Your task to perform on an android device: Search for the new lego star wars 2021 on Target Image 0: 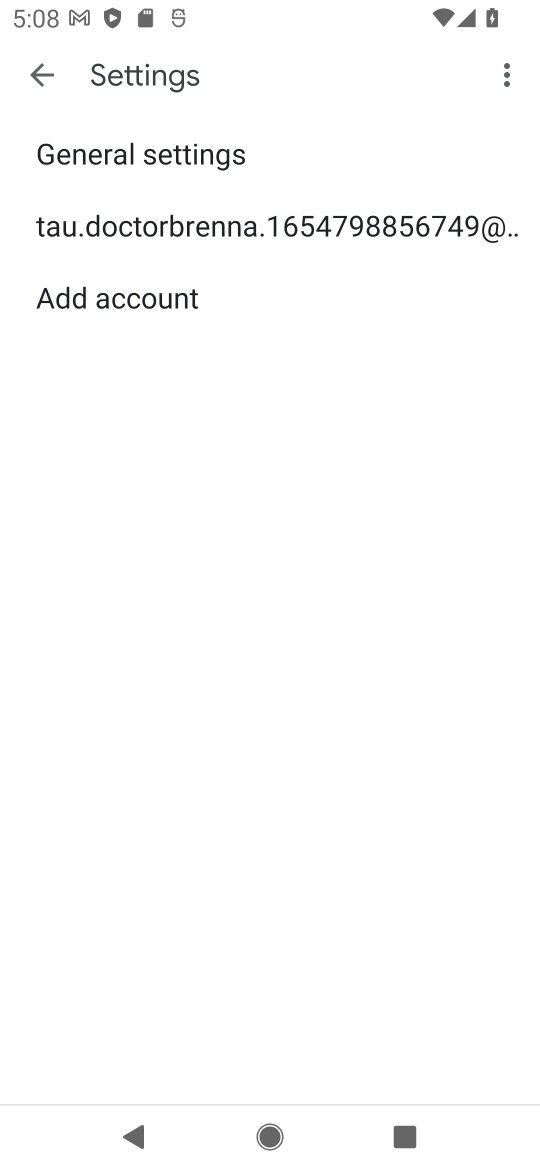
Step 0: press home button
Your task to perform on an android device: Search for the new lego star wars 2021 on Target Image 1: 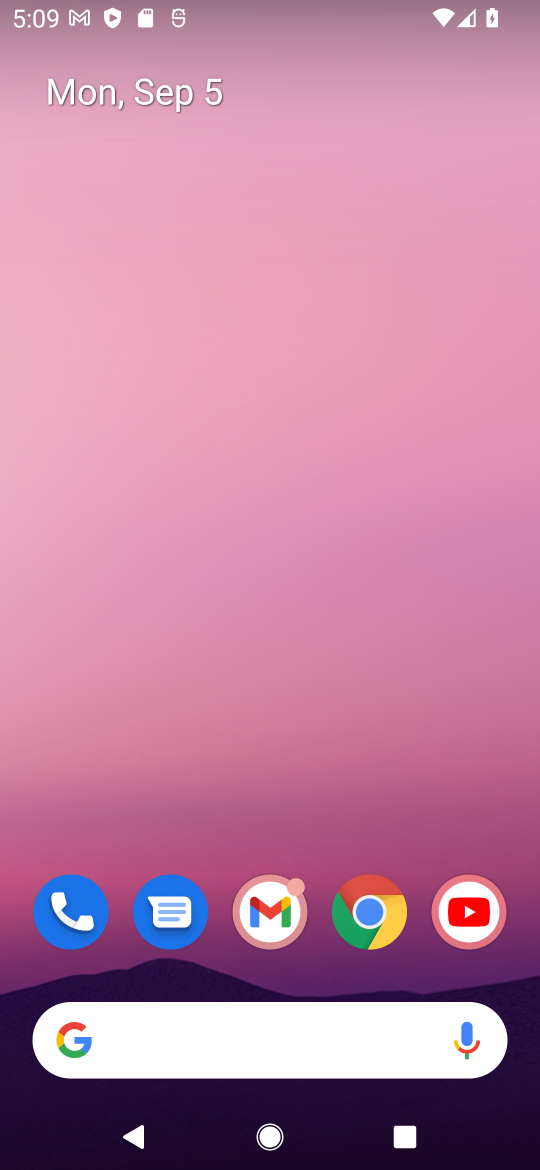
Step 1: click (381, 934)
Your task to perform on an android device: Search for the new lego star wars 2021 on Target Image 2: 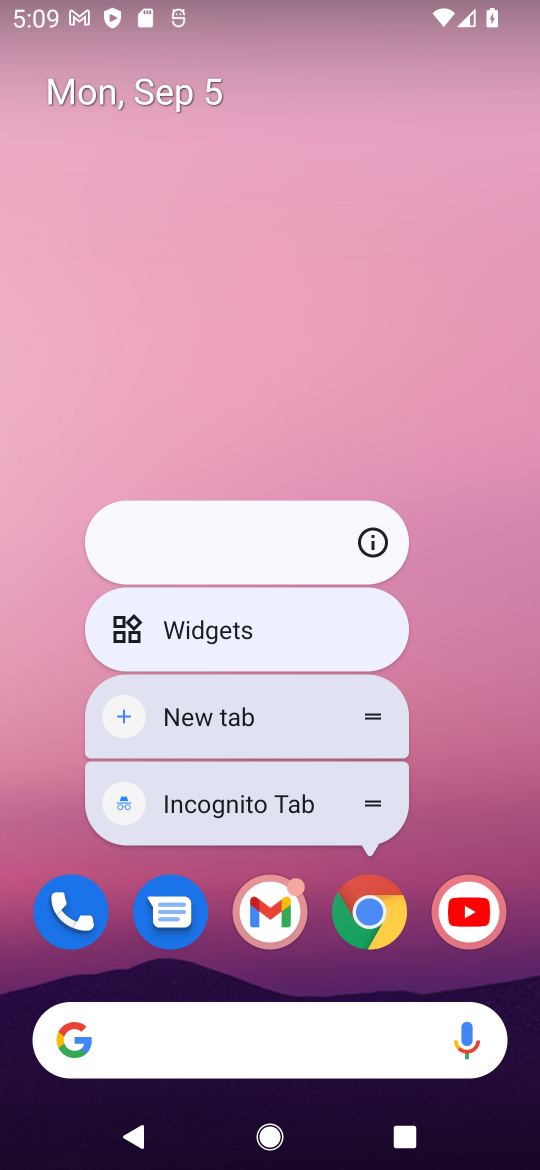
Step 2: click (368, 915)
Your task to perform on an android device: Search for the new lego star wars 2021 on Target Image 3: 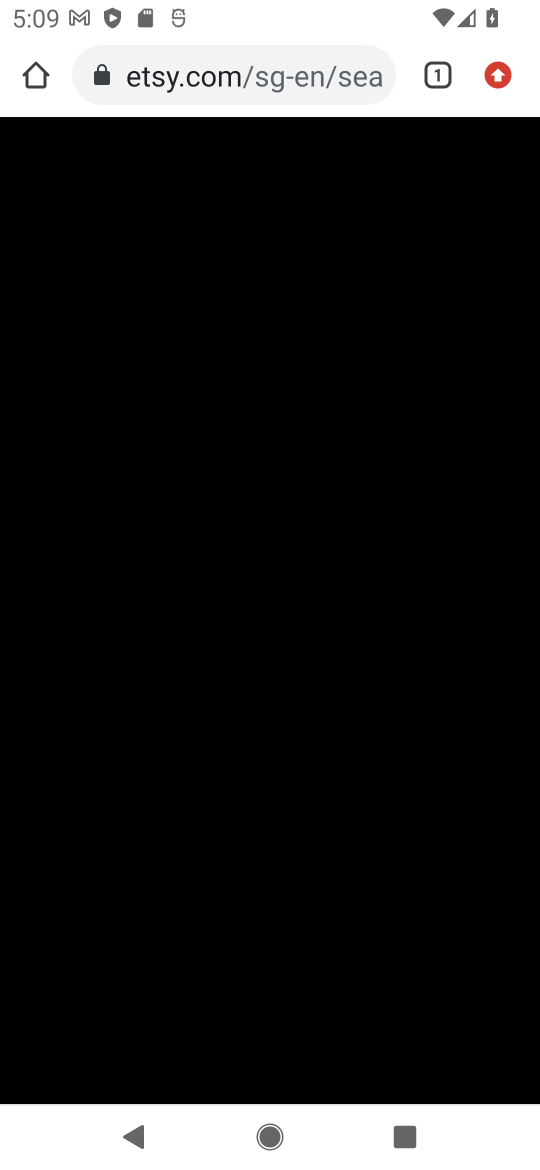
Step 3: click (265, 62)
Your task to perform on an android device: Search for the new lego star wars 2021 on Target Image 4: 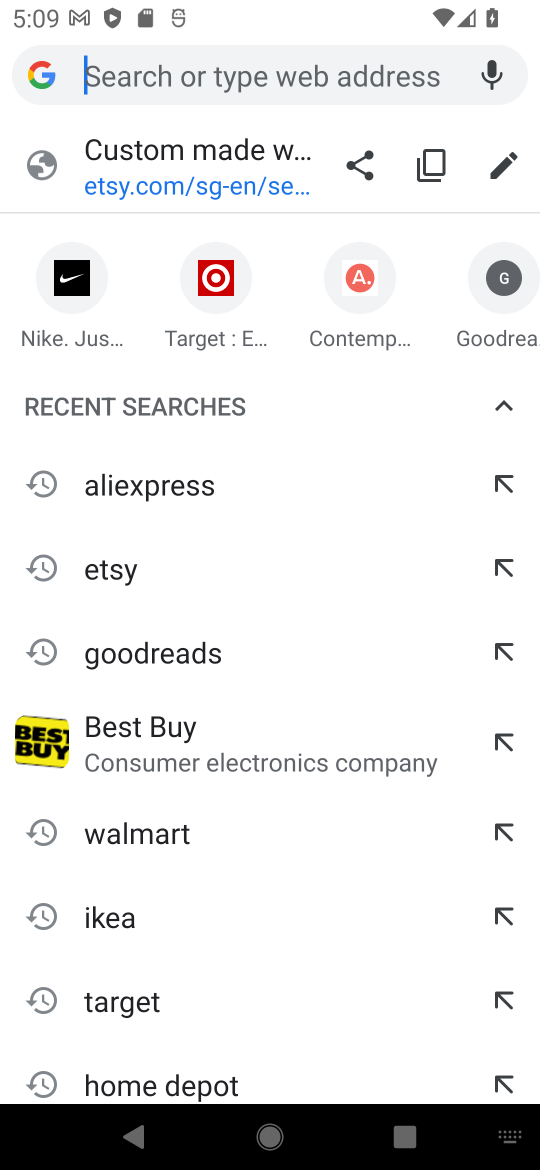
Step 4: type "target"
Your task to perform on an android device: Search for the new lego star wars 2021 on Target Image 5: 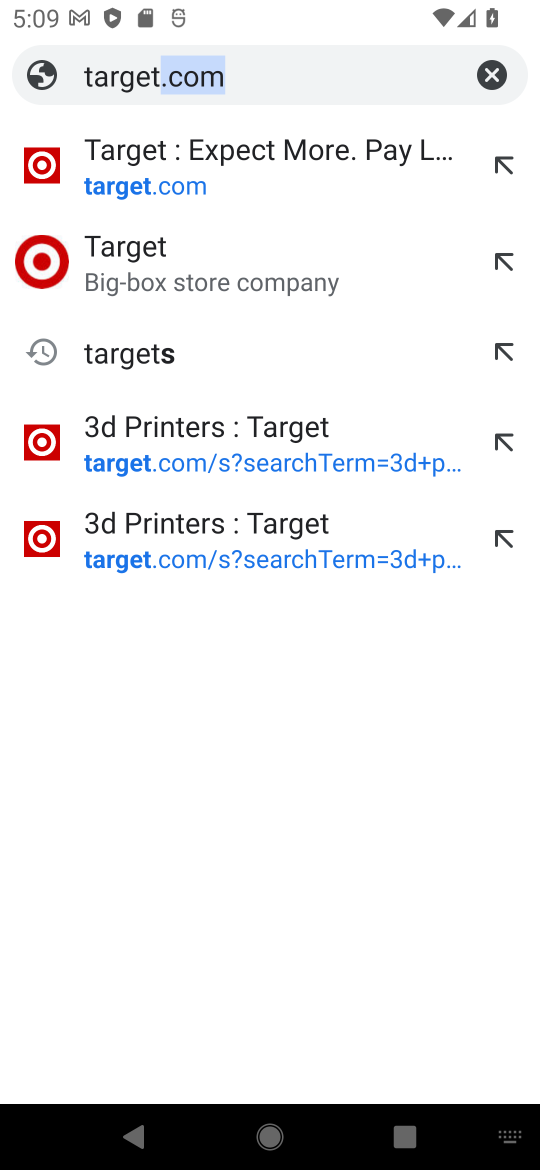
Step 5: press enter
Your task to perform on an android device: Search for the new lego star wars 2021 on Target Image 6: 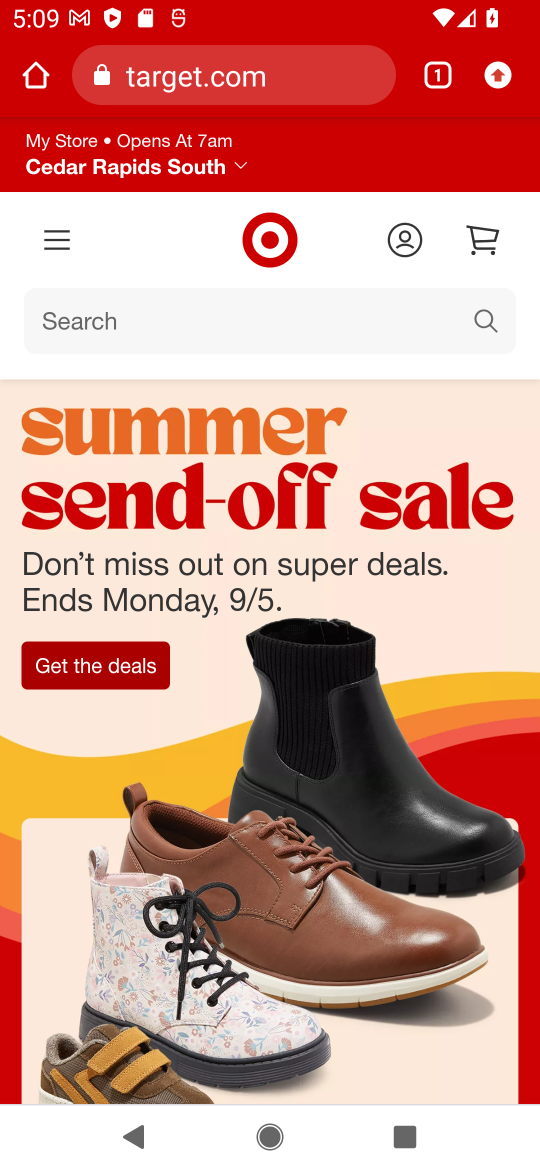
Step 6: click (258, 313)
Your task to perform on an android device: Search for the new lego star wars 2021 on Target Image 7: 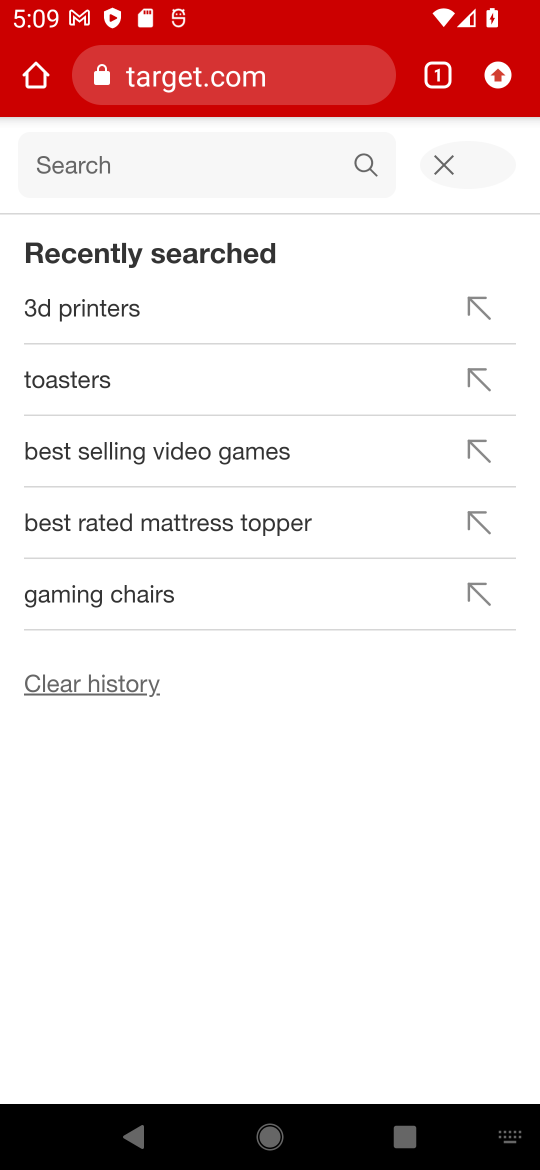
Step 7: type "new lego star wars 2021"
Your task to perform on an android device: Search for the new lego star wars 2021 on Target Image 8: 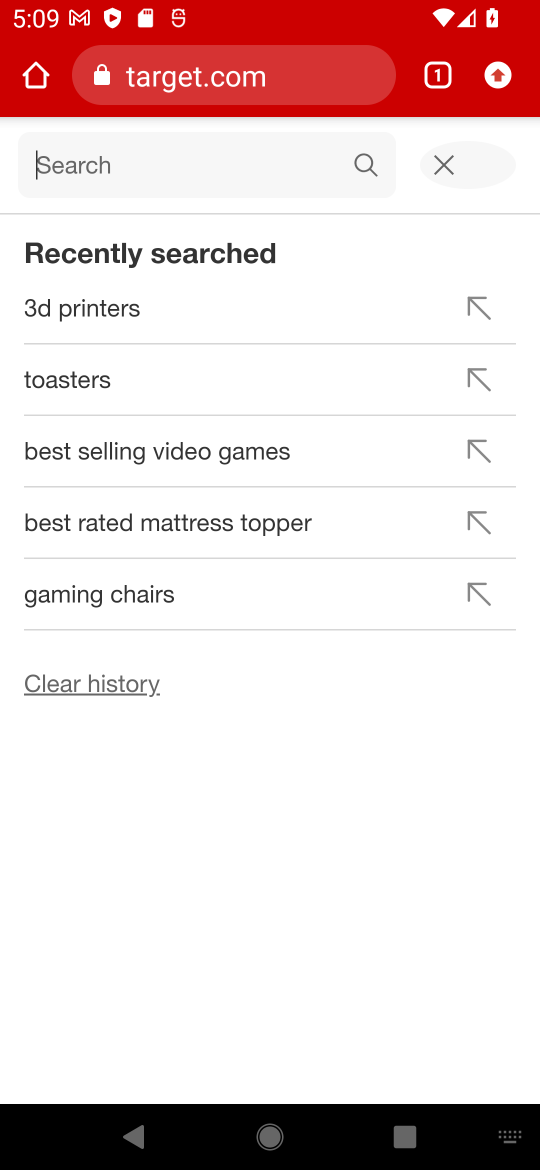
Step 8: type ""
Your task to perform on an android device: Search for the new lego star wars 2021 on Target Image 9: 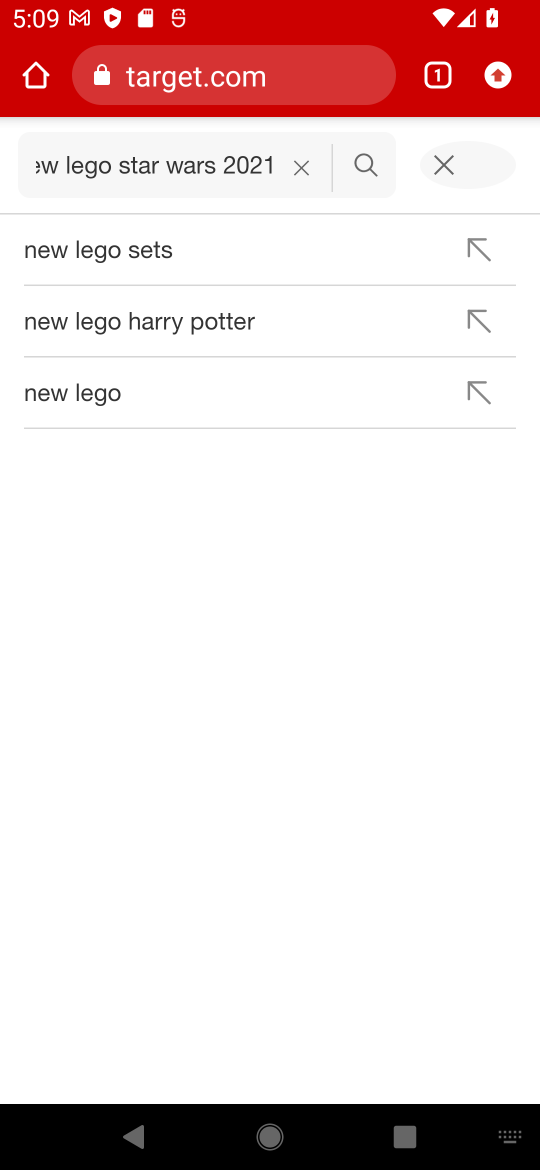
Step 9: press enter
Your task to perform on an android device: Search for the new lego star wars 2021 on Target Image 10: 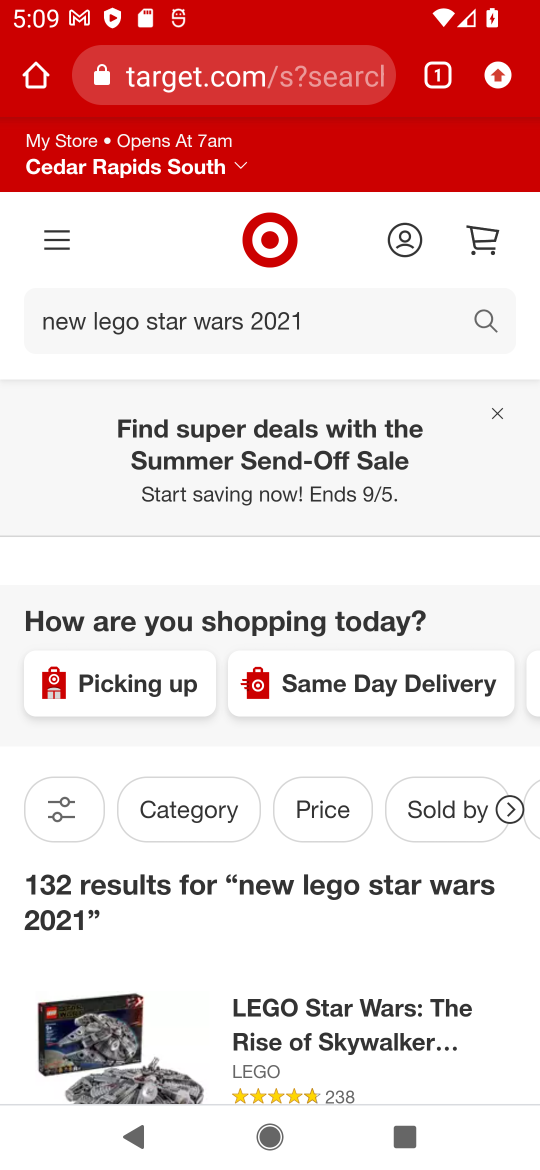
Step 10: drag from (282, 782) to (280, 492)
Your task to perform on an android device: Search for the new lego star wars 2021 on Target Image 11: 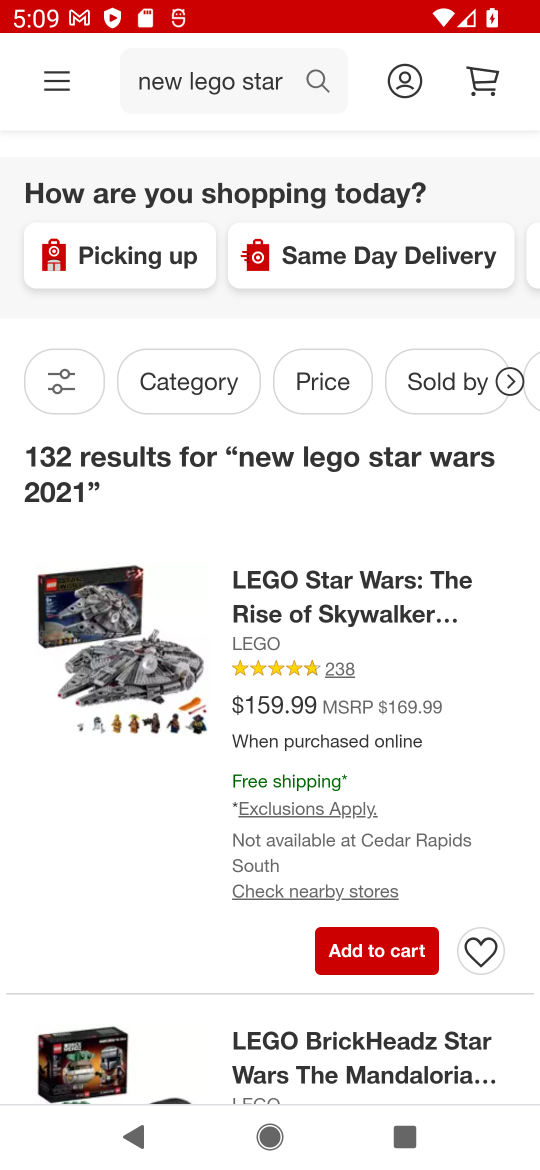
Step 11: drag from (533, 723) to (538, 568)
Your task to perform on an android device: Search for the new lego star wars 2021 on Target Image 12: 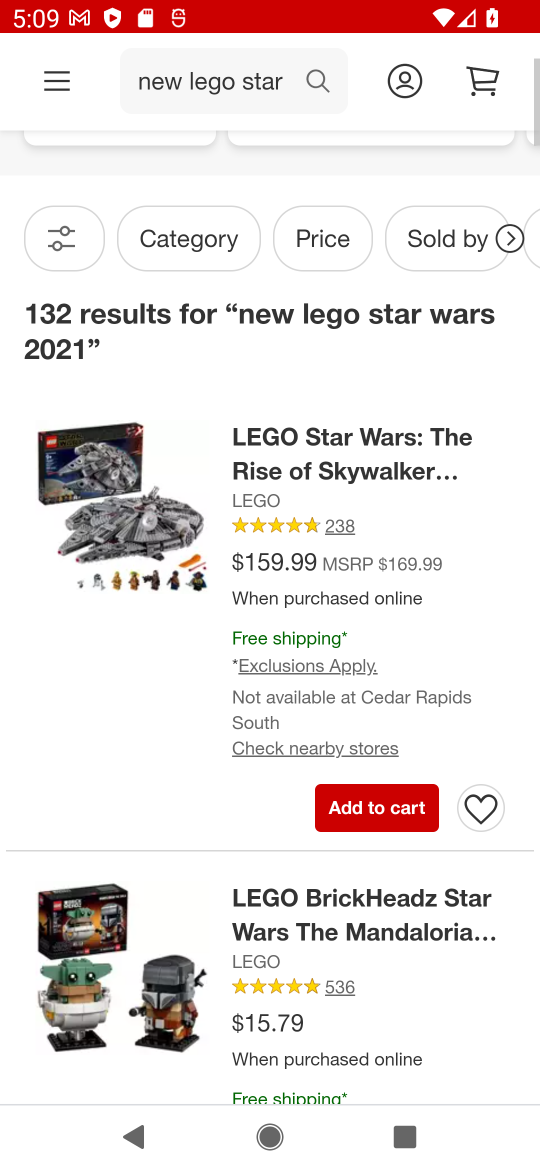
Step 12: drag from (421, 871) to (449, 537)
Your task to perform on an android device: Search for the new lego star wars 2021 on Target Image 13: 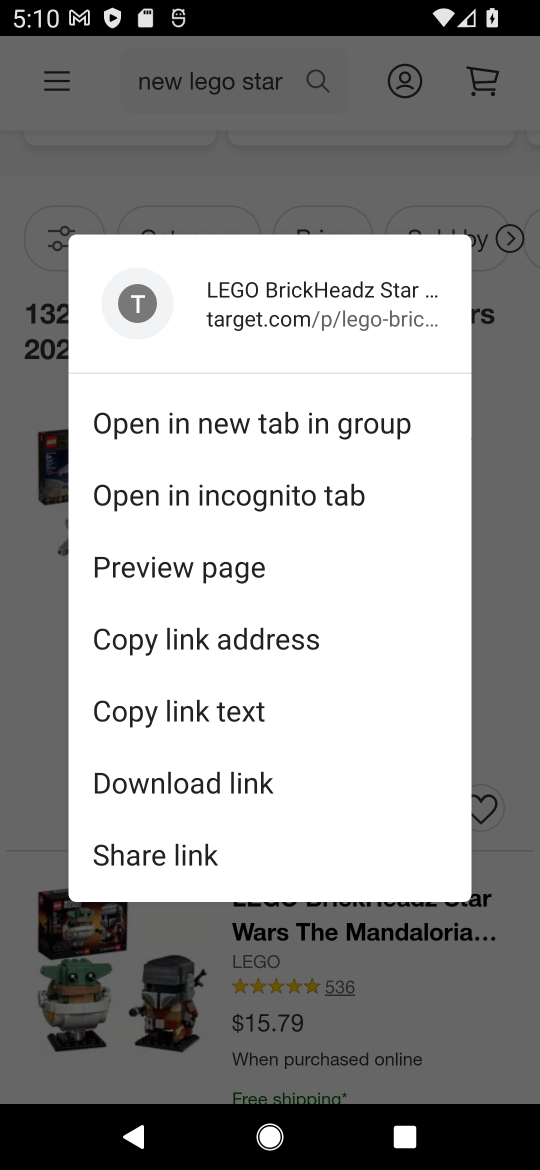
Step 13: click (524, 584)
Your task to perform on an android device: Search for the new lego star wars 2021 on Target Image 14: 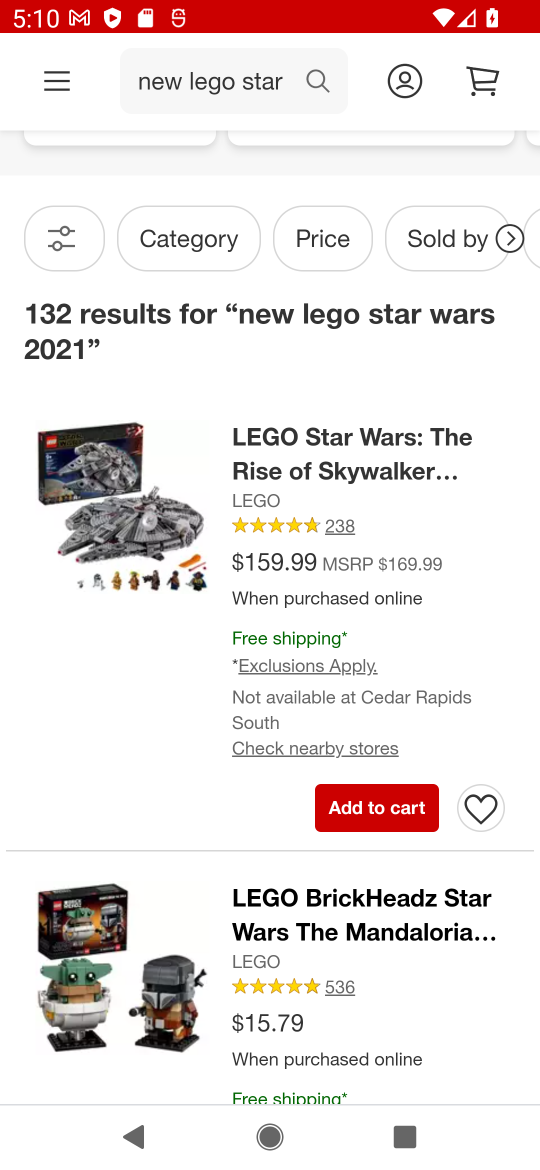
Step 14: task complete